Your task to perform on an android device: turn on sleep mode Image 0: 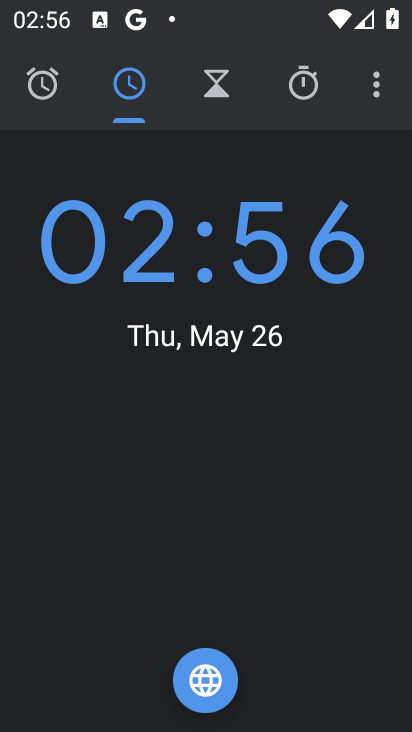
Step 0: press home button
Your task to perform on an android device: turn on sleep mode Image 1: 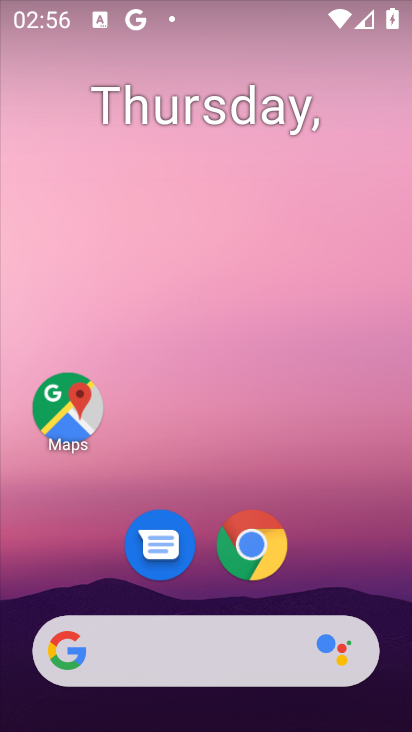
Step 1: drag from (315, 722) to (324, 148)
Your task to perform on an android device: turn on sleep mode Image 2: 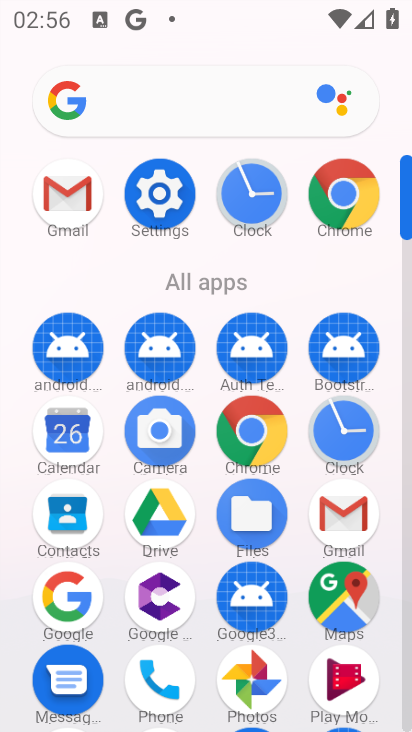
Step 2: click (160, 201)
Your task to perform on an android device: turn on sleep mode Image 3: 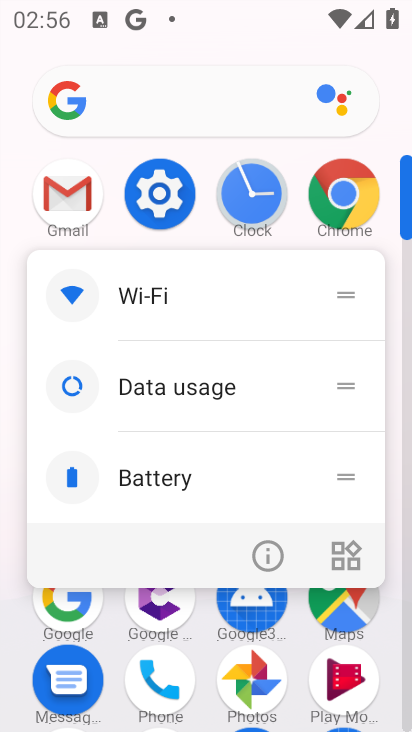
Step 3: click (162, 193)
Your task to perform on an android device: turn on sleep mode Image 4: 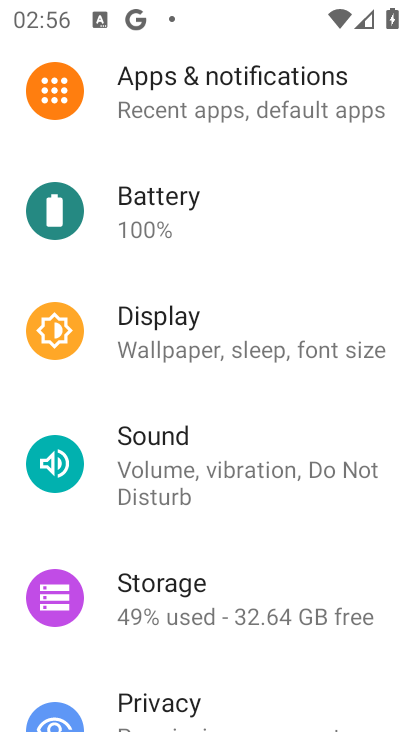
Step 4: click (310, 342)
Your task to perform on an android device: turn on sleep mode Image 5: 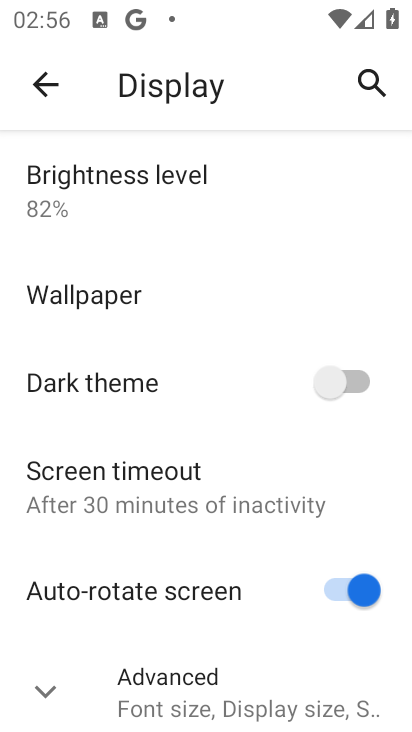
Step 5: task complete